Your task to perform on an android device: check the backup settings in the google photos Image 0: 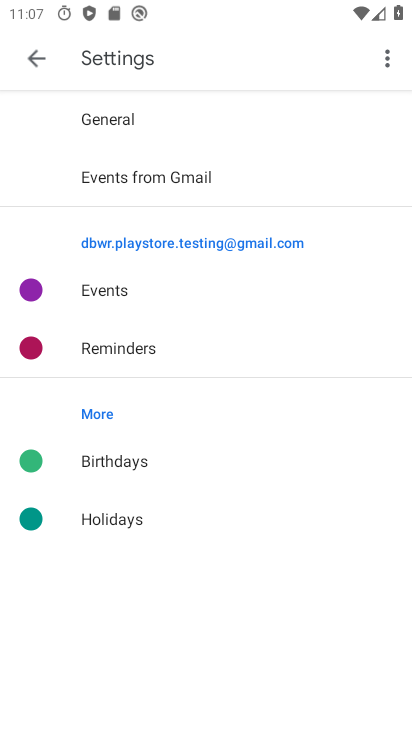
Step 0: press back button
Your task to perform on an android device: check the backup settings in the google photos Image 1: 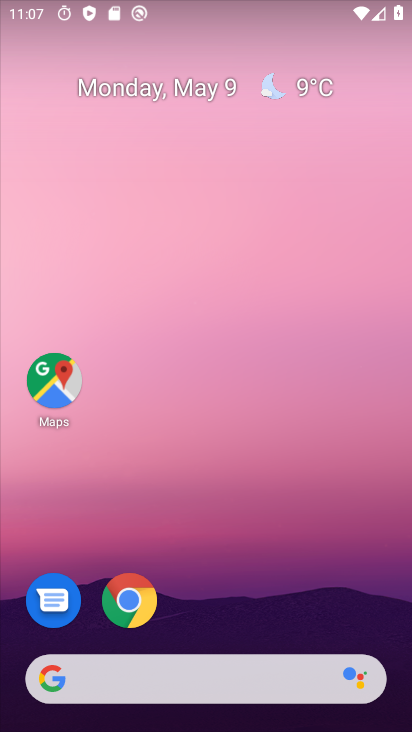
Step 1: drag from (160, 641) to (271, 32)
Your task to perform on an android device: check the backup settings in the google photos Image 2: 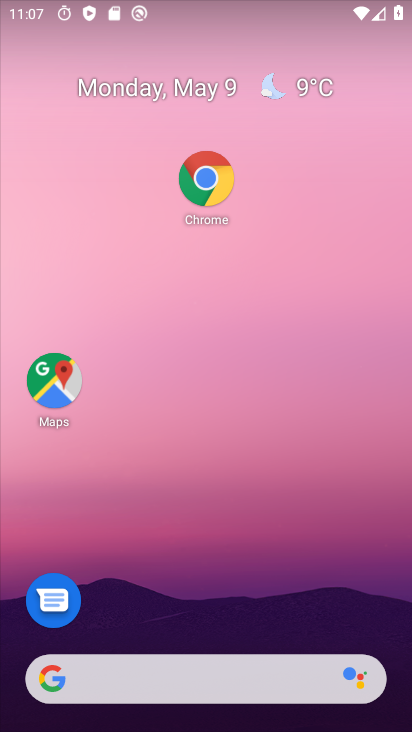
Step 2: drag from (187, 668) to (364, 50)
Your task to perform on an android device: check the backup settings in the google photos Image 3: 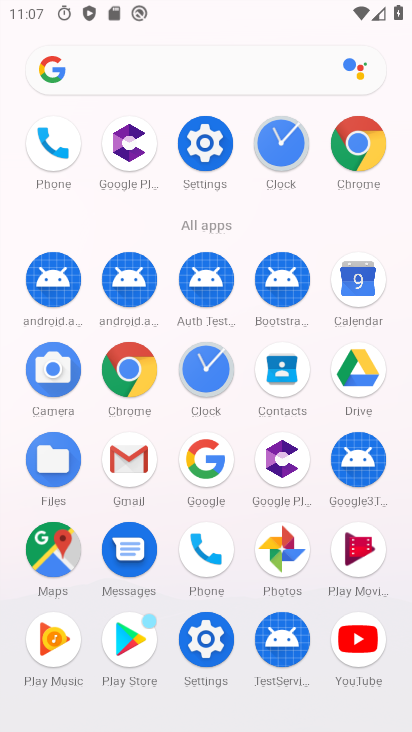
Step 3: click (286, 541)
Your task to perform on an android device: check the backup settings in the google photos Image 4: 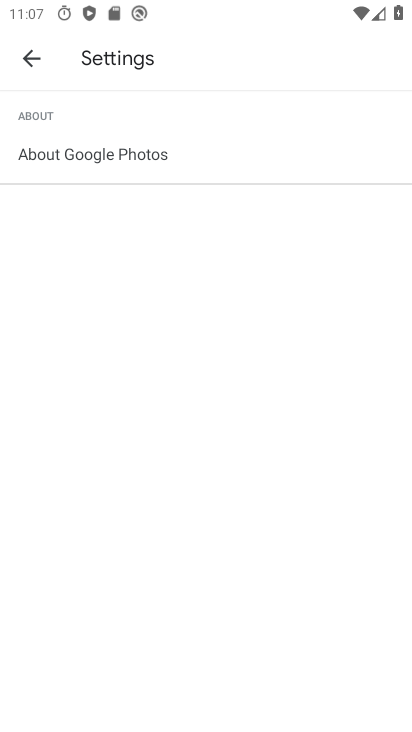
Step 4: click (22, 65)
Your task to perform on an android device: check the backup settings in the google photos Image 5: 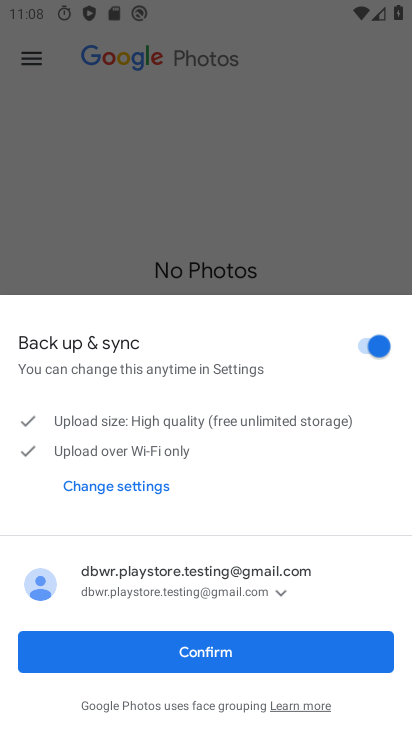
Step 5: click (205, 668)
Your task to perform on an android device: check the backup settings in the google photos Image 6: 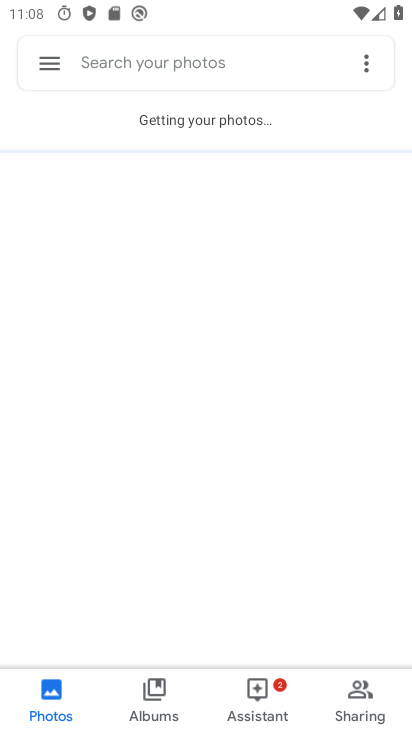
Step 6: click (63, 61)
Your task to perform on an android device: check the backup settings in the google photos Image 7: 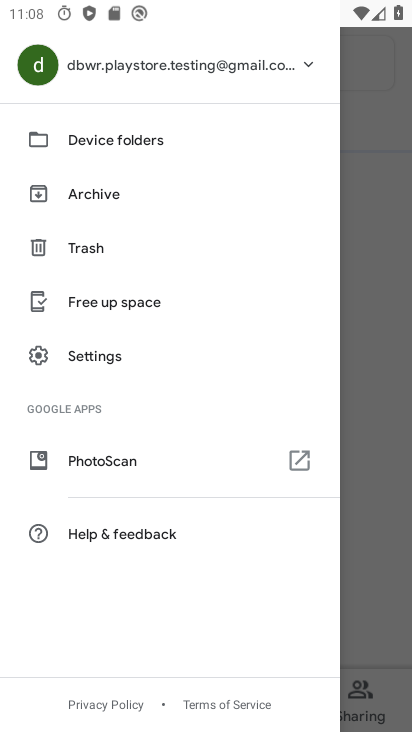
Step 7: click (141, 370)
Your task to perform on an android device: check the backup settings in the google photos Image 8: 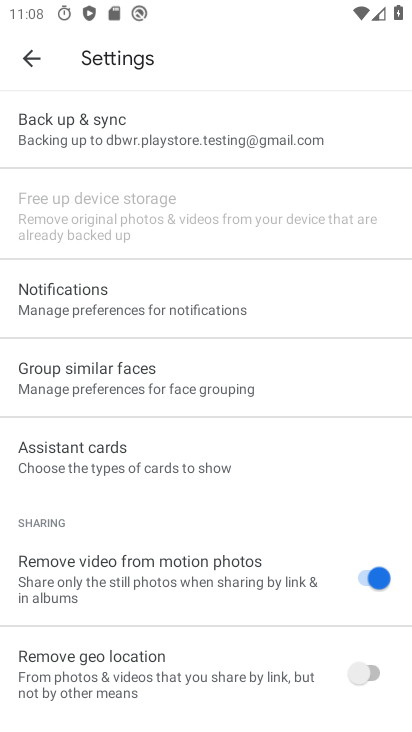
Step 8: click (246, 133)
Your task to perform on an android device: check the backup settings in the google photos Image 9: 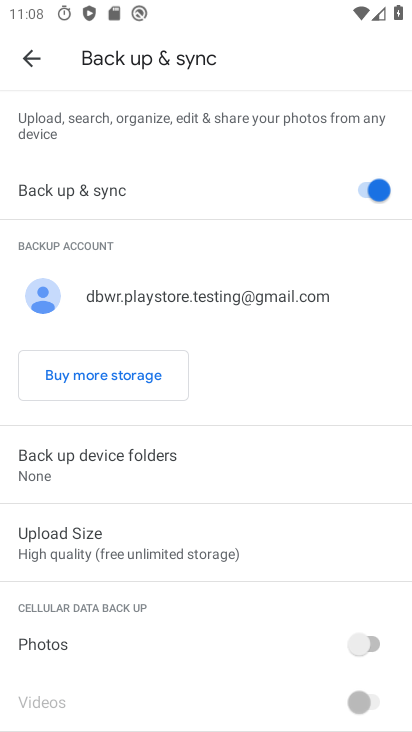
Step 9: task complete